Your task to perform on an android device: Open battery settings Image 0: 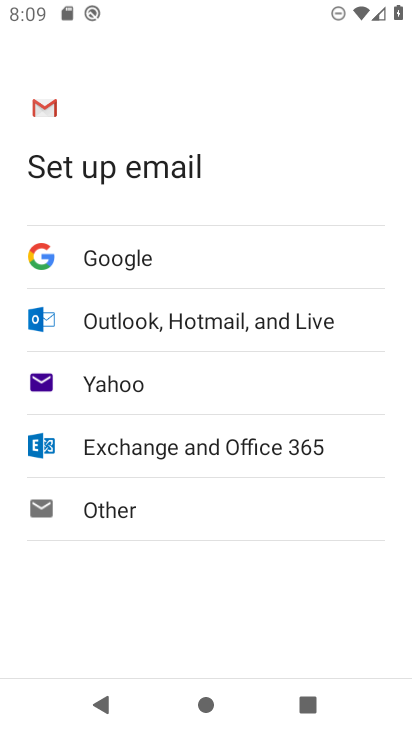
Step 0: press home button
Your task to perform on an android device: Open battery settings Image 1: 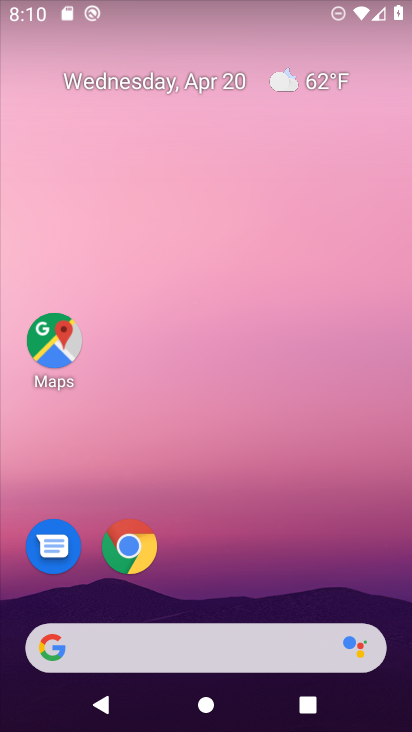
Step 1: drag from (263, 546) to (233, 118)
Your task to perform on an android device: Open battery settings Image 2: 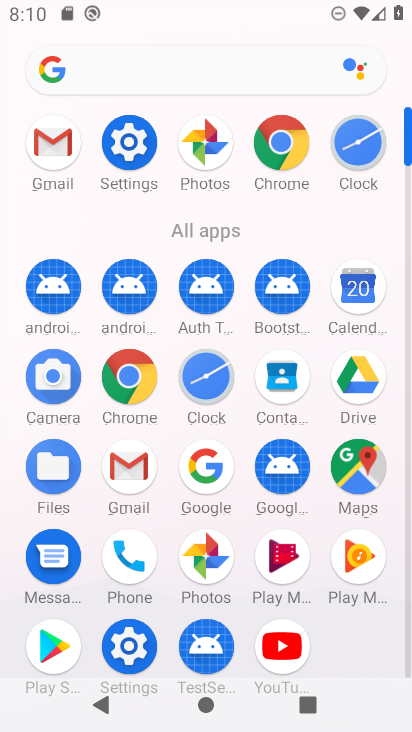
Step 2: click (142, 144)
Your task to perform on an android device: Open battery settings Image 3: 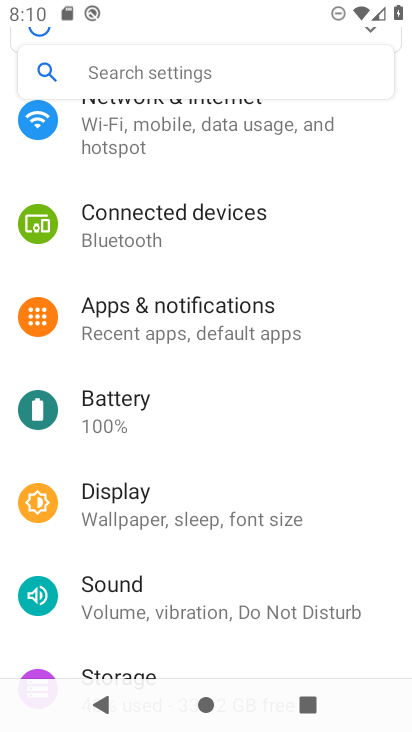
Step 3: click (179, 406)
Your task to perform on an android device: Open battery settings Image 4: 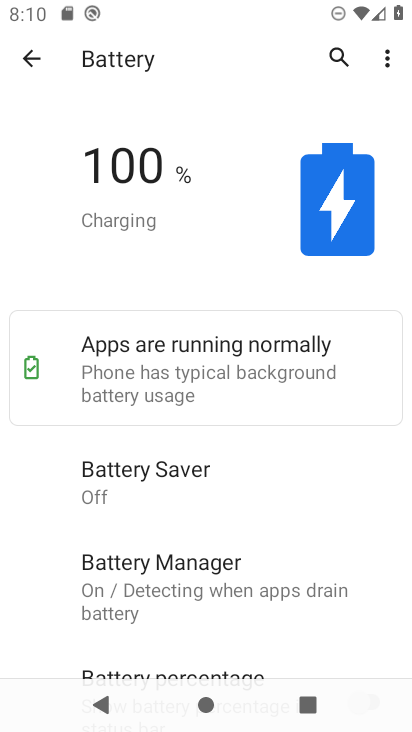
Step 4: task complete